Your task to perform on an android device: turn on notifications settings in the gmail app Image 0: 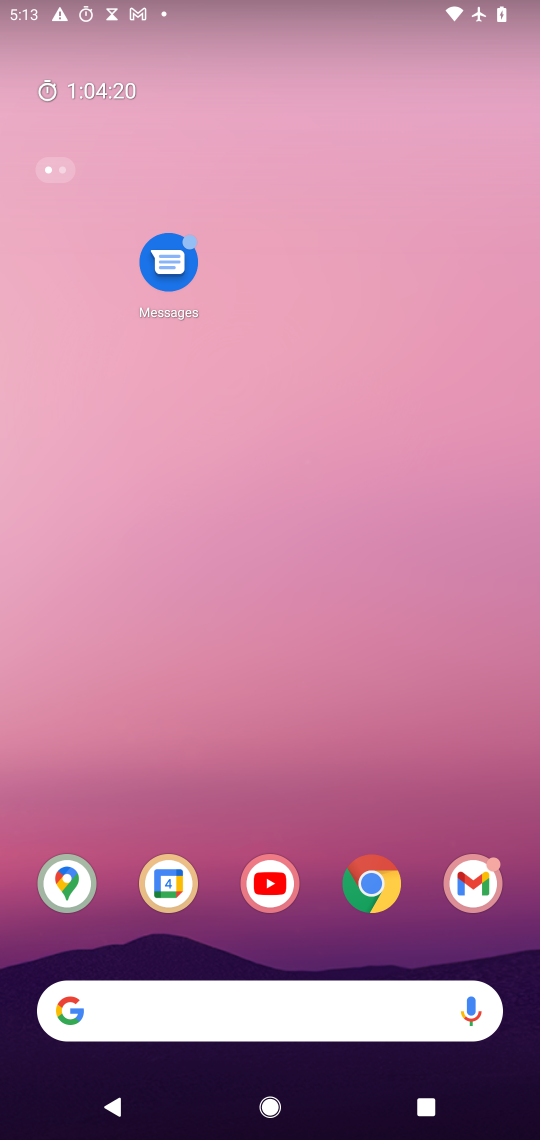
Step 0: drag from (316, 906) to (299, 21)
Your task to perform on an android device: turn on notifications settings in the gmail app Image 1: 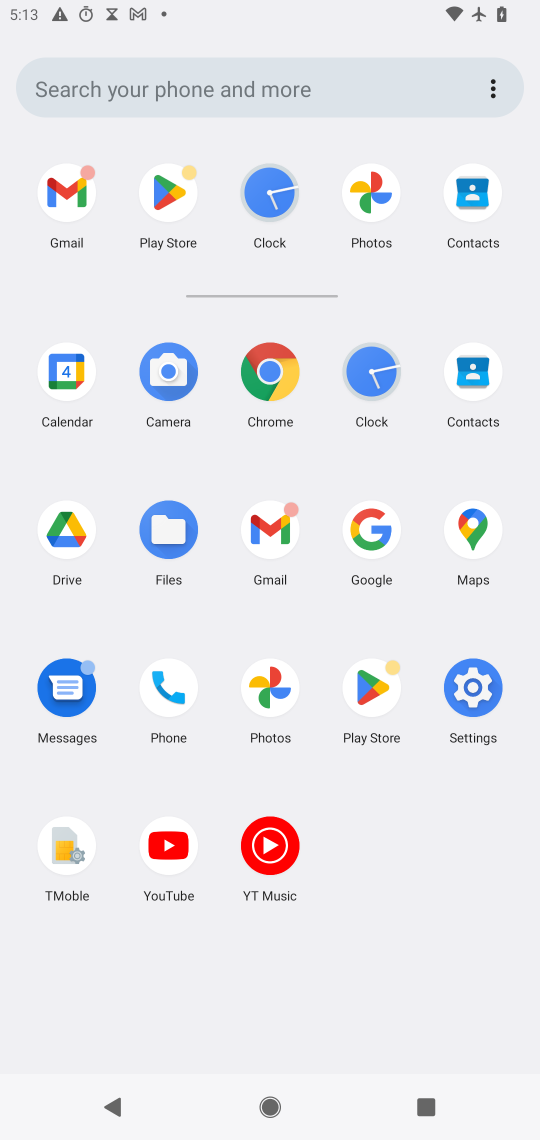
Step 1: click (271, 528)
Your task to perform on an android device: turn on notifications settings in the gmail app Image 2: 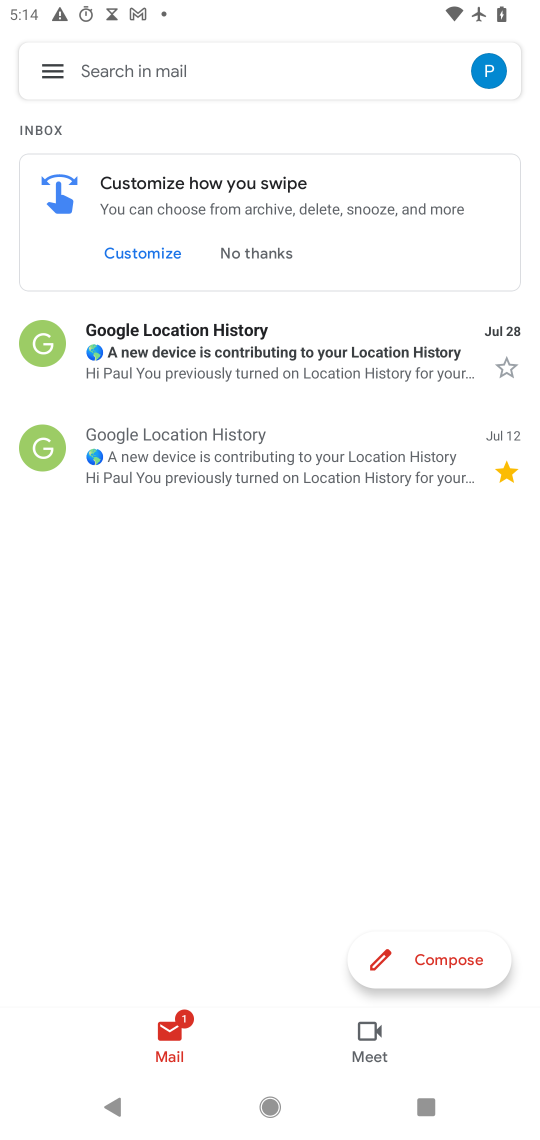
Step 2: click (54, 65)
Your task to perform on an android device: turn on notifications settings in the gmail app Image 3: 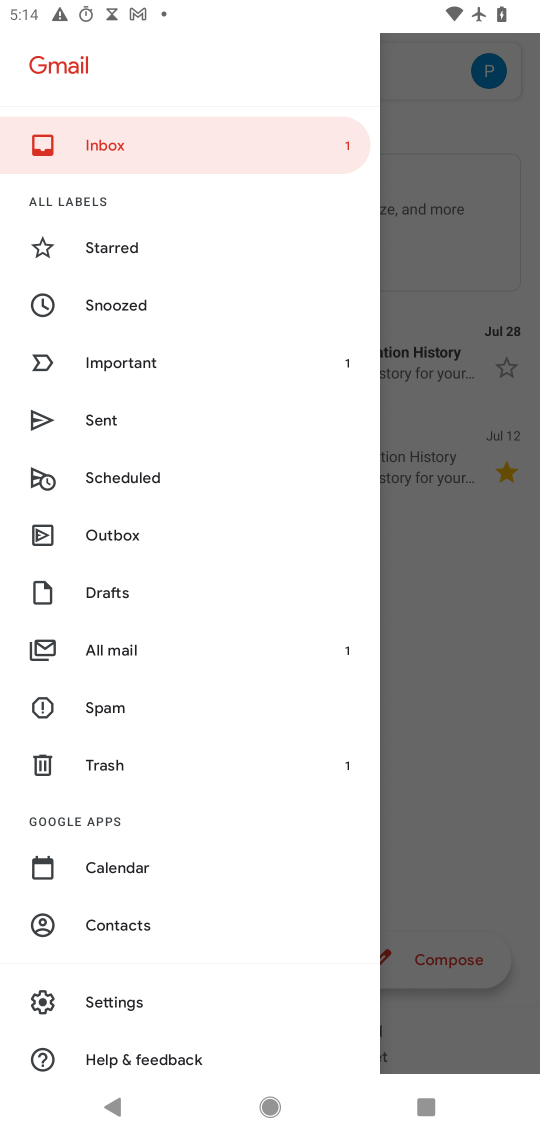
Step 3: click (129, 1004)
Your task to perform on an android device: turn on notifications settings in the gmail app Image 4: 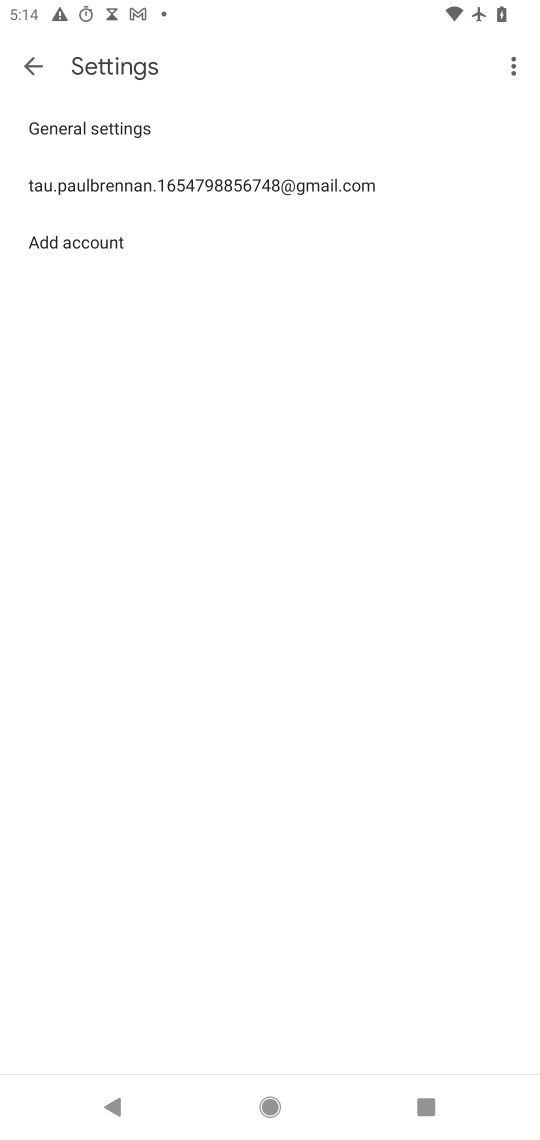
Step 4: click (192, 183)
Your task to perform on an android device: turn on notifications settings in the gmail app Image 5: 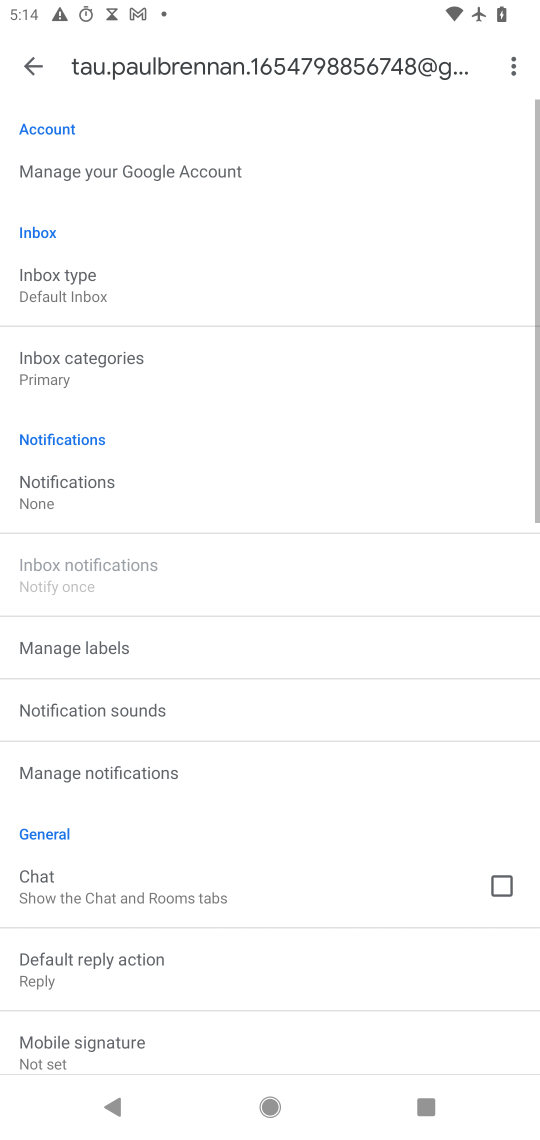
Step 5: click (64, 485)
Your task to perform on an android device: turn on notifications settings in the gmail app Image 6: 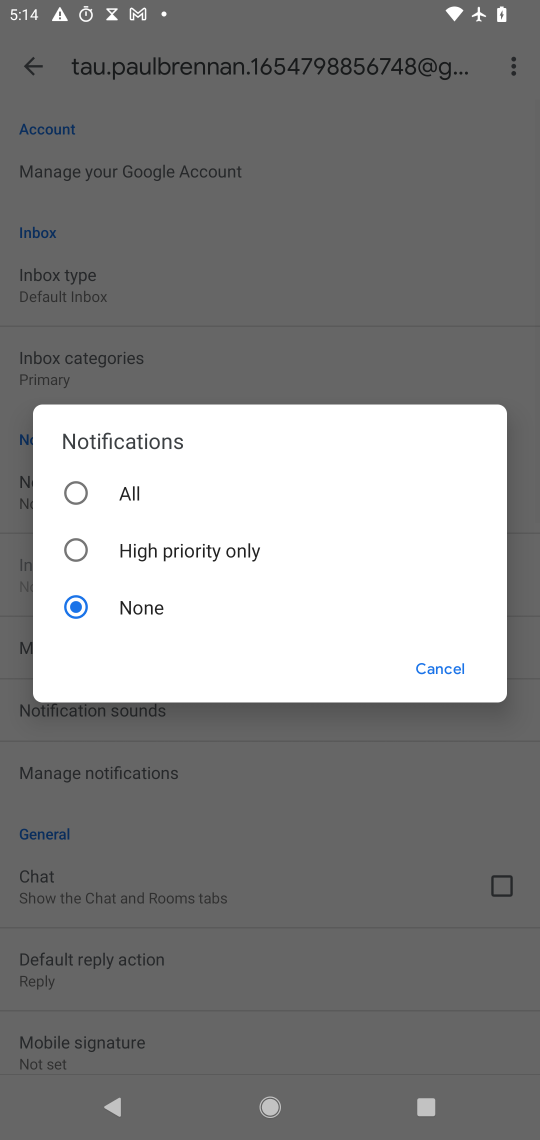
Step 6: click (70, 485)
Your task to perform on an android device: turn on notifications settings in the gmail app Image 7: 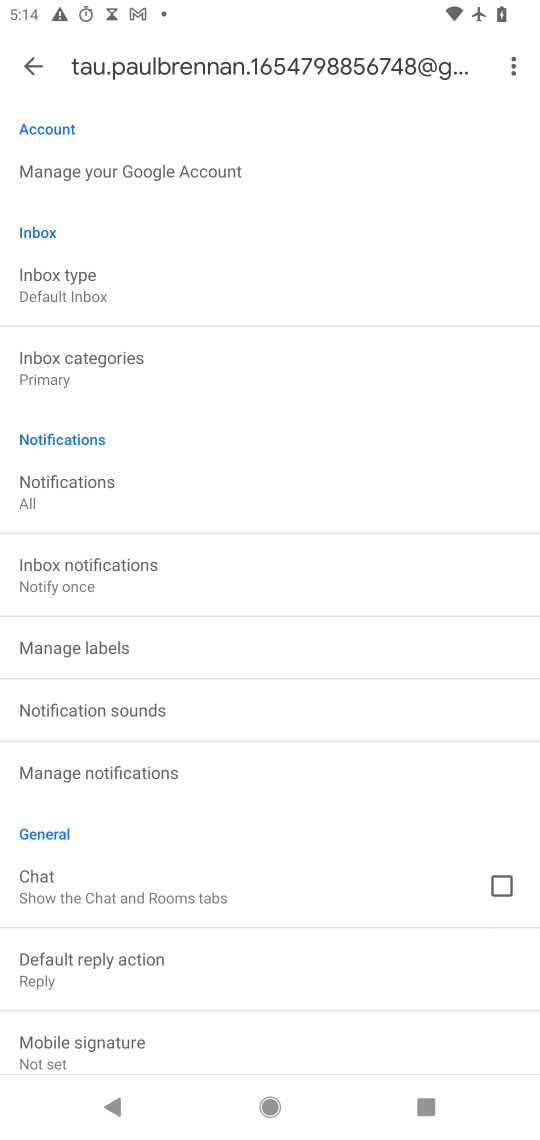
Step 7: task complete